Your task to perform on an android device: check battery use Image 0: 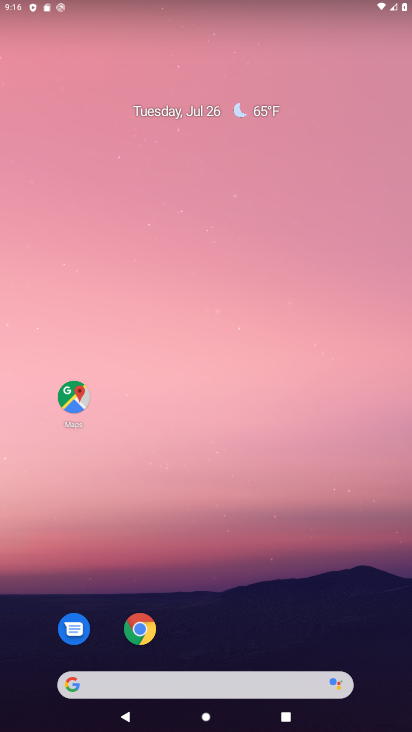
Step 0: drag from (277, 657) to (241, 96)
Your task to perform on an android device: check battery use Image 1: 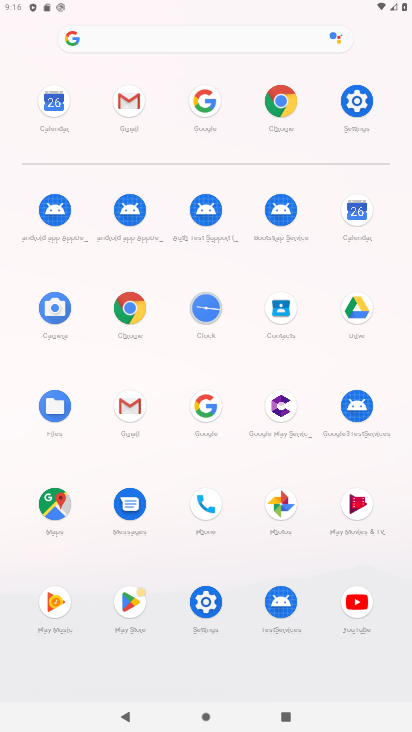
Step 1: click (358, 97)
Your task to perform on an android device: check battery use Image 2: 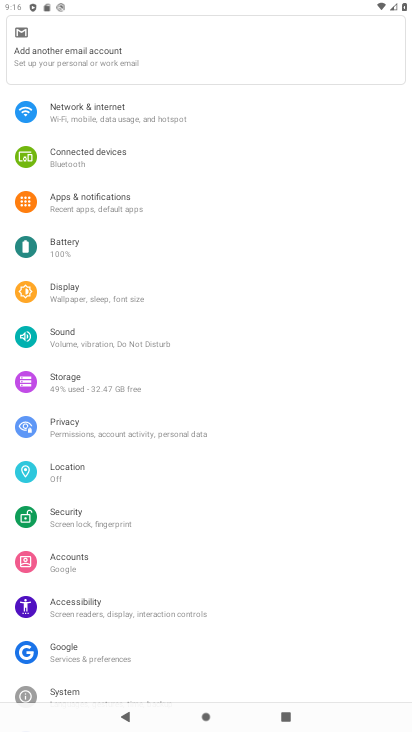
Step 2: click (85, 248)
Your task to perform on an android device: check battery use Image 3: 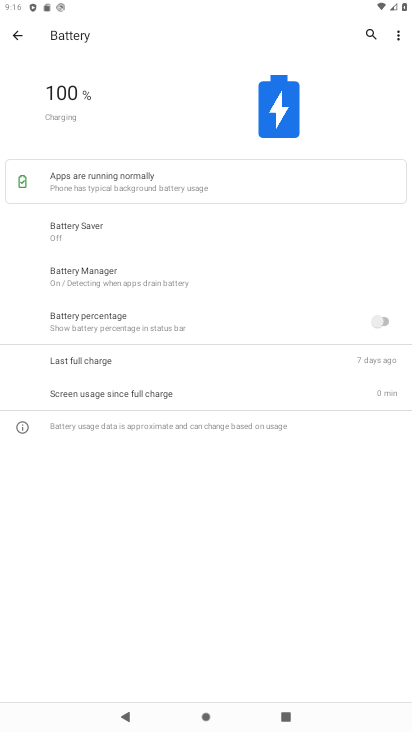
Step 3: click (398, 29)
Your task to perform on an android device: check battery use Image 4: 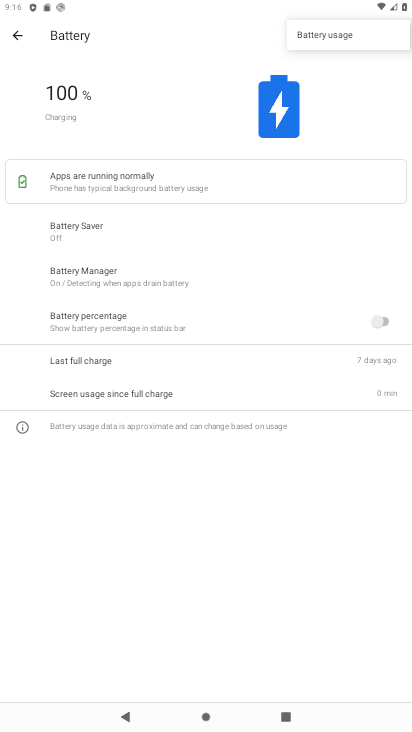
Step 4: click (362, 38)
Your task to perform on an android device: check battery use Image 5: 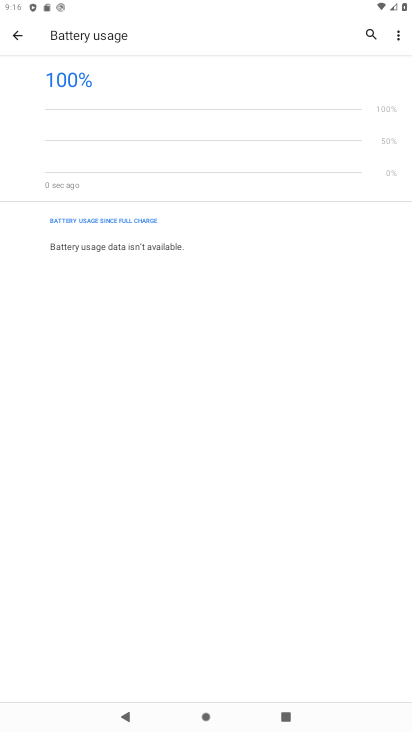
Step 5: task complete